Your task to perform on an android device: Go to ESPN.com Image 0: 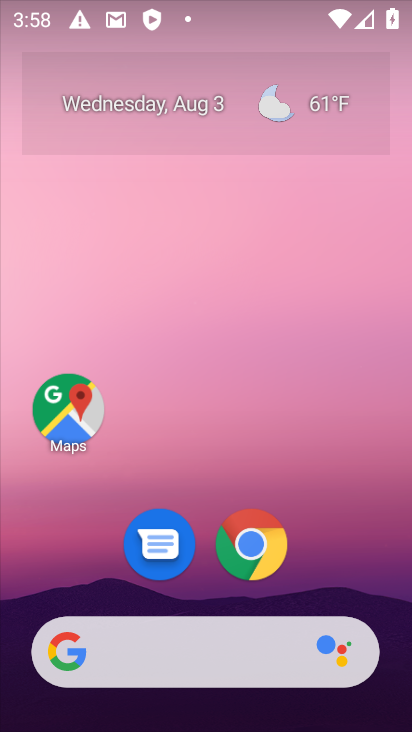
Step 0: click (261, 540)
Your task to perform on an android device: Go to ESPN.com Image 1: 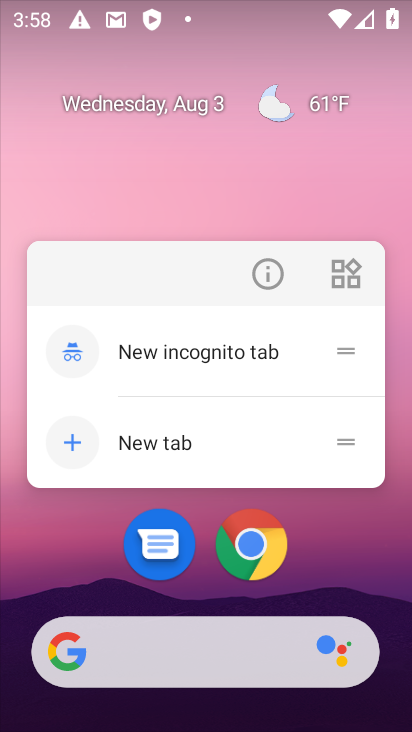
Step 1: click (250, 547)
Your task to perform on an android device: Go to ESPN.com Image 2: 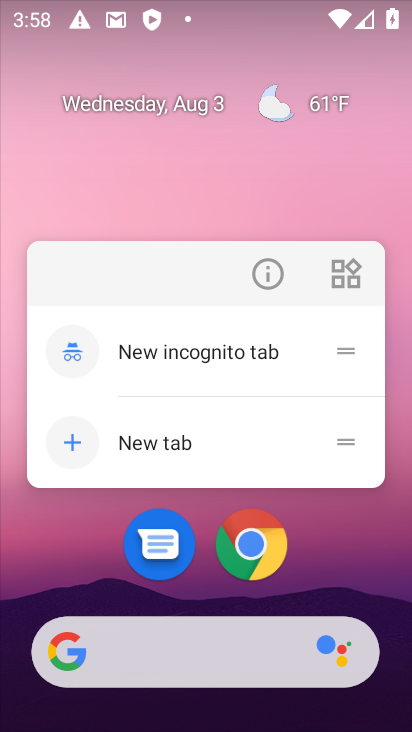
Step 2: click (250, 547)
Your task to perform on an android device: Go to ESPN.com Image 3: 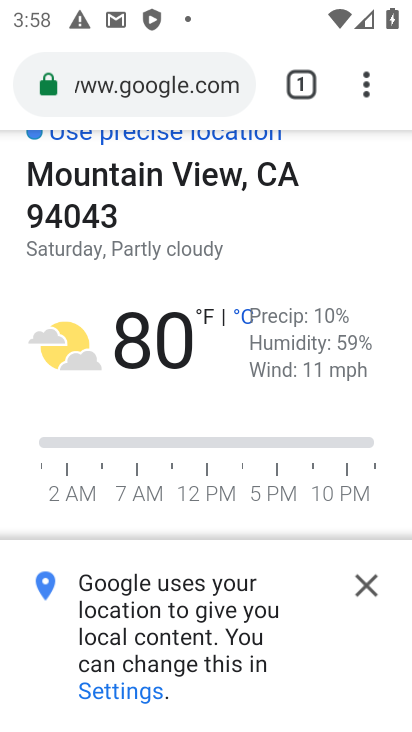
Step 3: click (141, 74)
Your task to perform on an android device: Go to ESPN.com Image 4: 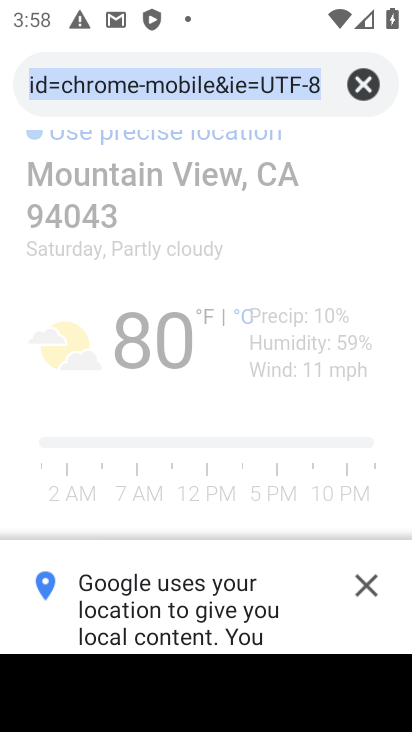
Step 4: type " ESPN.com"
Your task to perform on an android device: Go to ESPN.com Image 5: 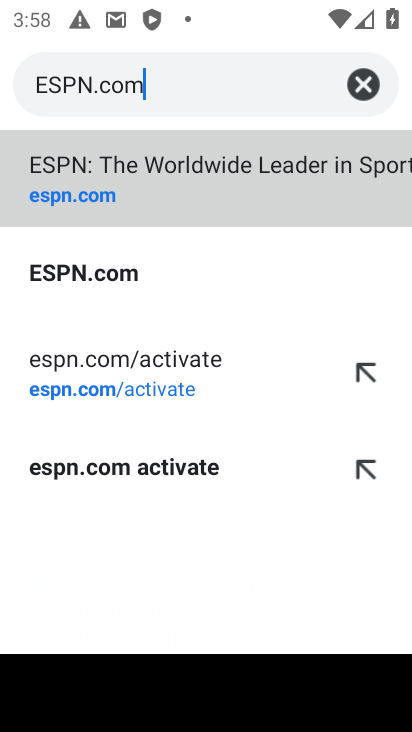
Step 5: type ""
Your task to perform on an android device: Go to ESPN.com Image 6: 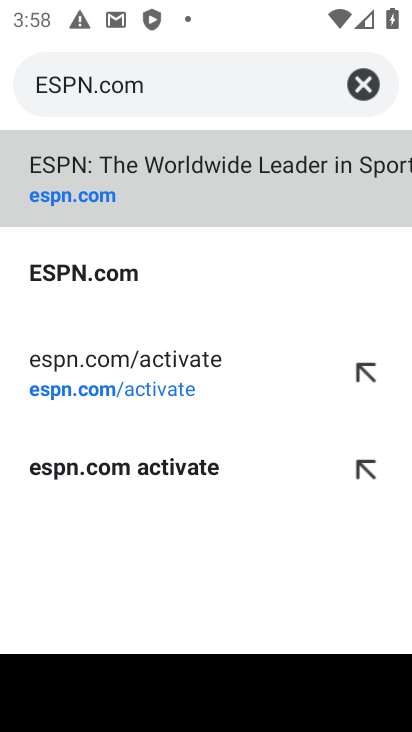
Step 6: click (77, 189)
Your task to perform on an android device: Go to ESPN.com Image 7: 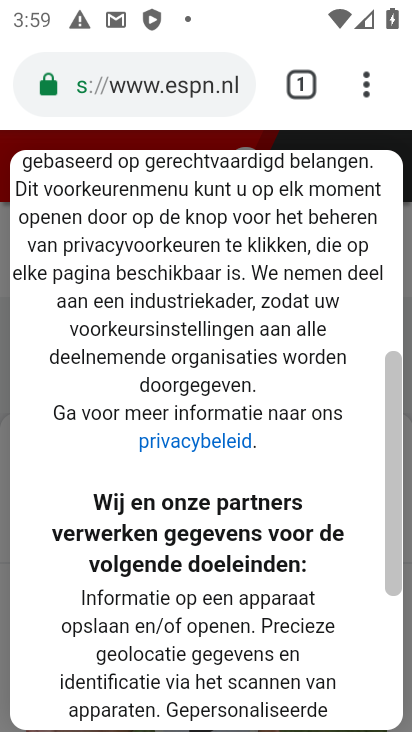
Step 7: task complete